Your task to perform on an android device: check out phone information Image 0: 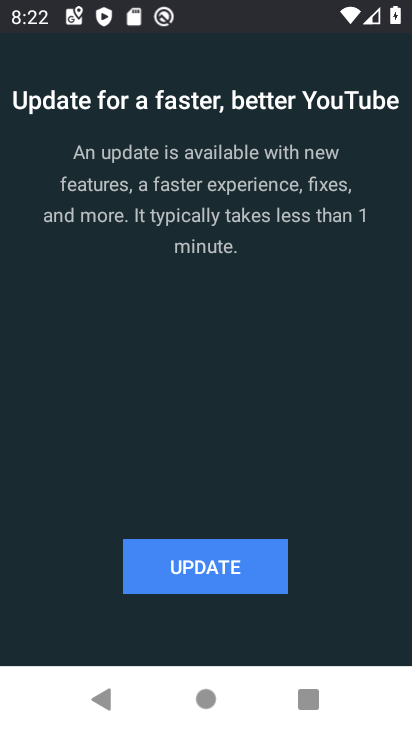
Step 0: press home button
Your task to perform on an android device: check out phone information Image 1: 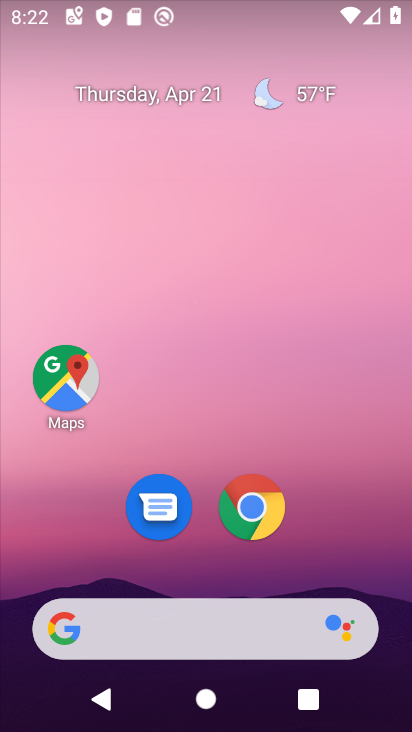
Step 1: drag from (347, 546) to (360, 36)
Your task to perform on an android device: check out phone information Image 2: 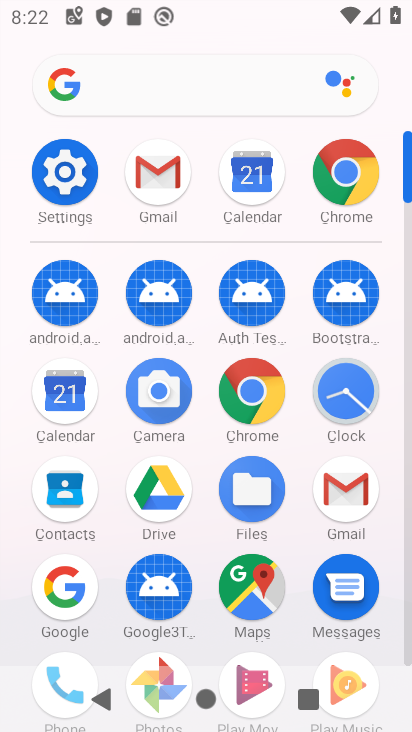
Step 2: click (408, 628)
Your task to perform on an android device: check out phone information Image 3: 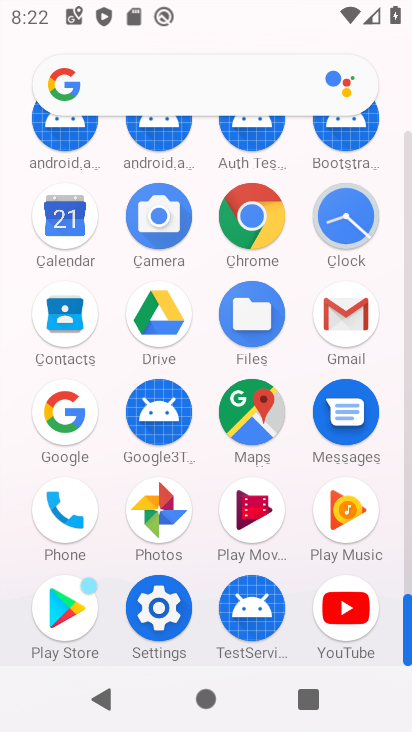
Step 3: click (45, 516)
Your task to perform on an android device: check out phone information Image 4: 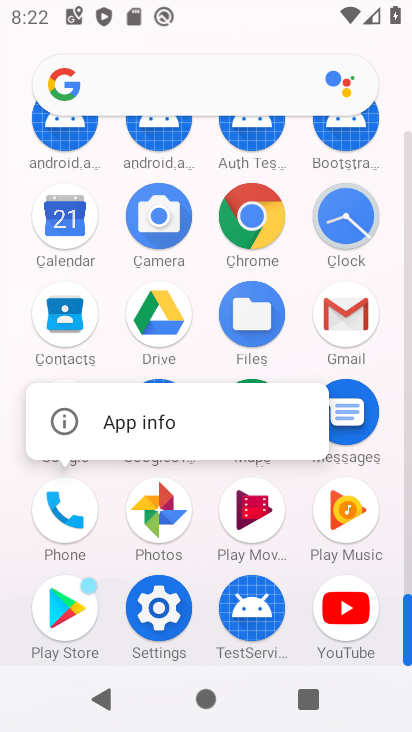
Step 4: press home button
Your task to perform on an android device: check out phone information Image 5: 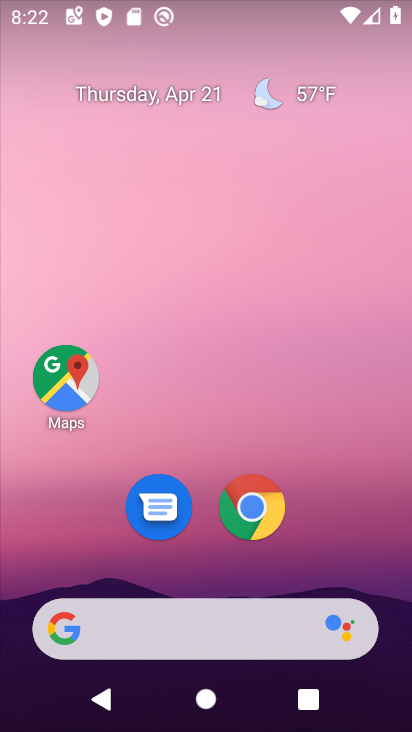
Step 5: drag from (361, 529) to (342, 25)
Your task to perform on an android device: check out phone information Image 6: 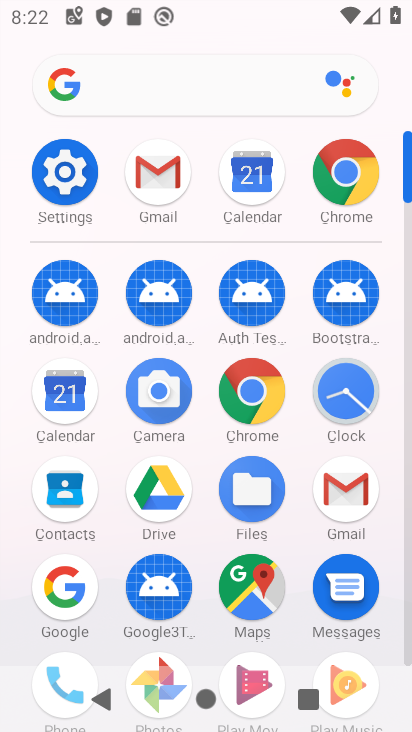
Step 6: click (407, 580)
Your task to perform on an android device: check out phone information Image 7: 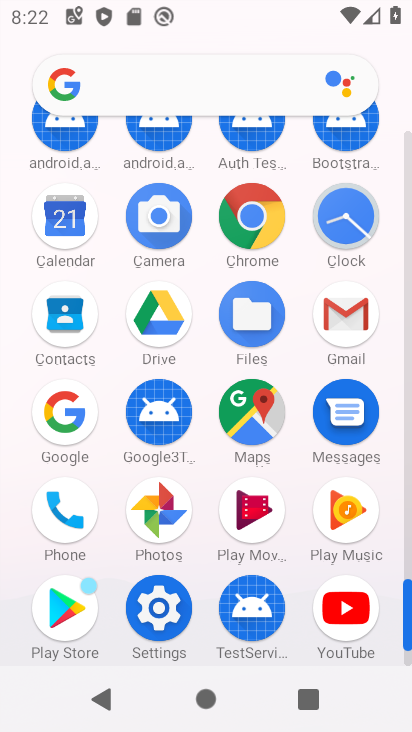
Step 7: click (64, 510)
Your task to perform on an android device: check out phone information Image 8: 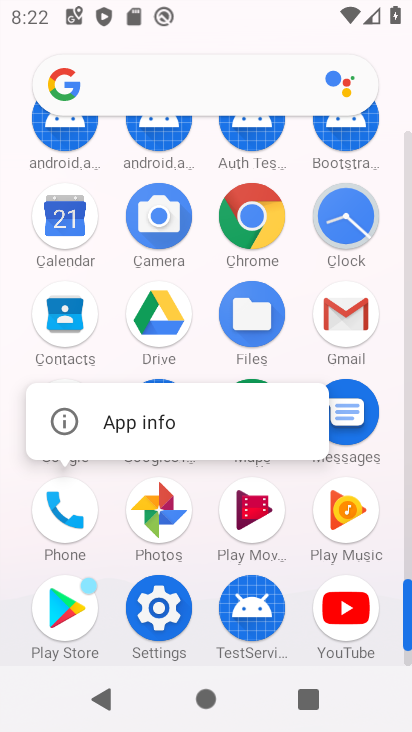
Step 8: click (83, 440)
Your task to perform on an android device: check out phone information Image 9: 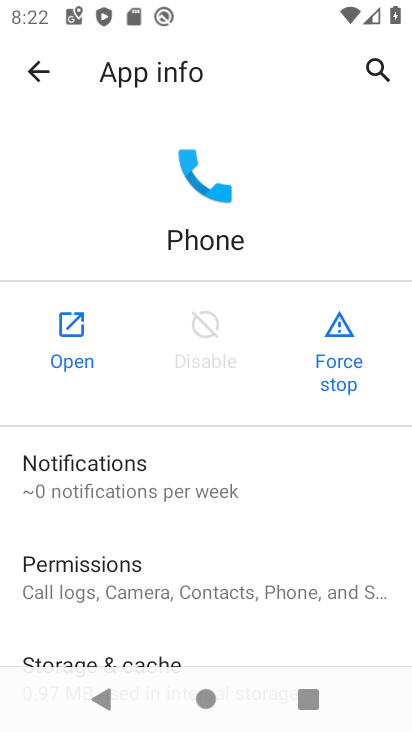
Step 9: task complete